Your task to perform on an android device: Search for vegetarian restaurants on Maps Image 0: 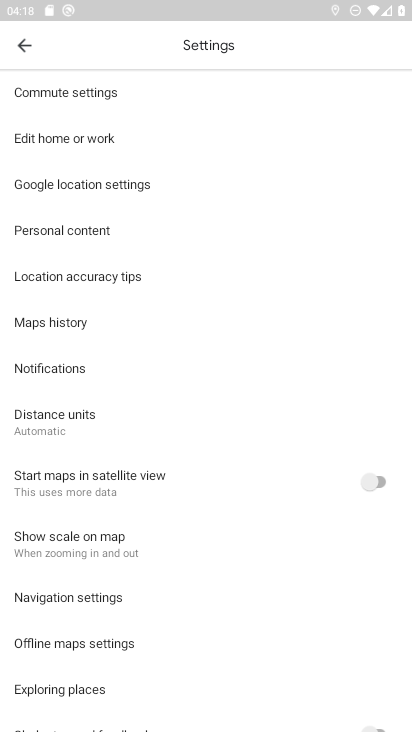
Step 0: press home button
Your task to perform on an android device: Search for vegetarian restaurants on Maps Image 1: 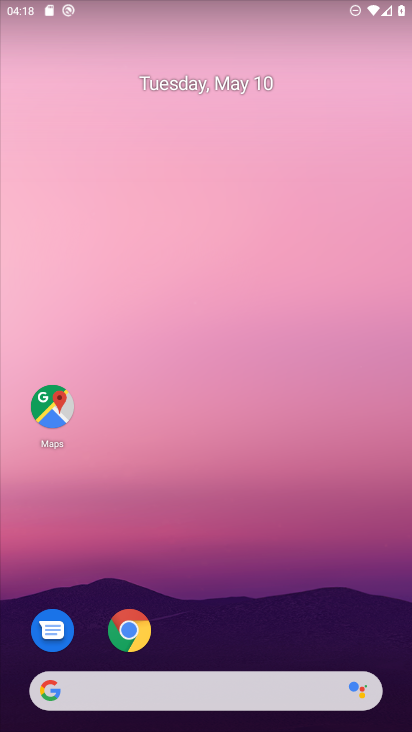
Step 1: click (48, 401)
Your task to perform on an android device: Search for vegetarian restaurants on Maps Image 2: 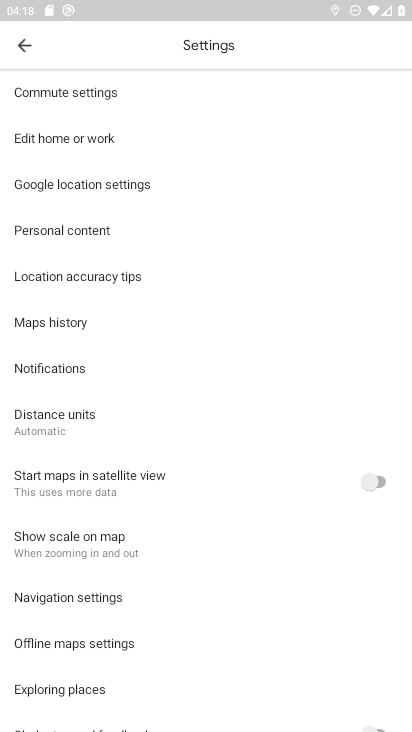
Step 2: press home button
Your task to perform on an android device: Search for vegetarian restaurants on Maps Image 3: 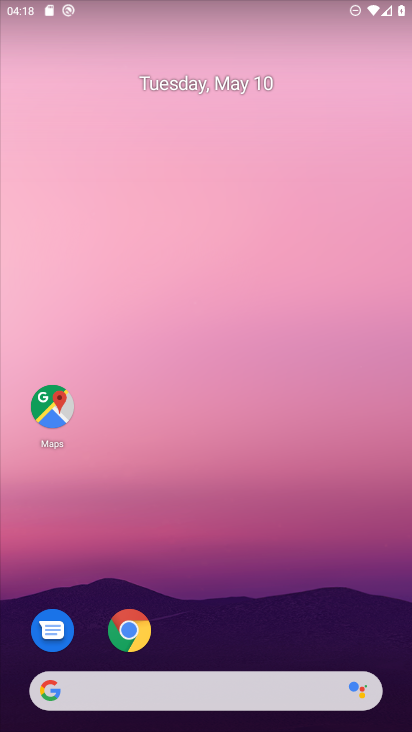
Step 3: click (48, 426)
Your task to perform on an android device: Search for vegetarian restaurants on Maps Image 4: 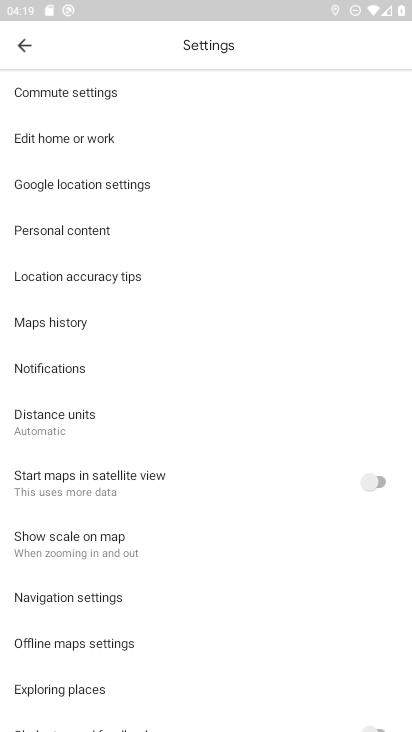
Step 4: press home button
Your task to perform on an android device: Search for vegetarian restaurants on Maps Image 5: 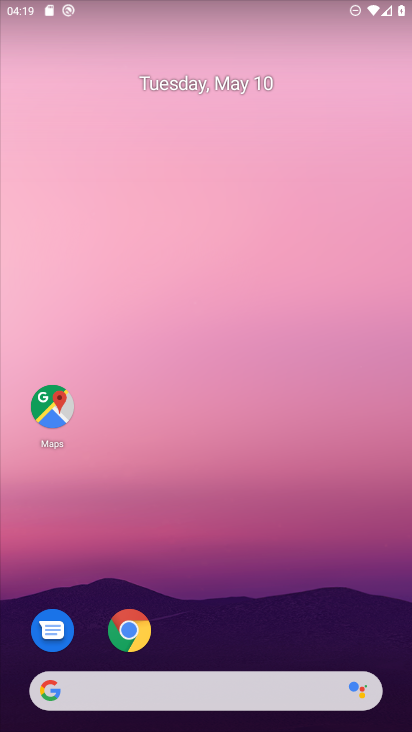
Step 5: click (59, 412)
Your task to perform on an android device: Search for vegetarian restaurants on Maps Image 6: 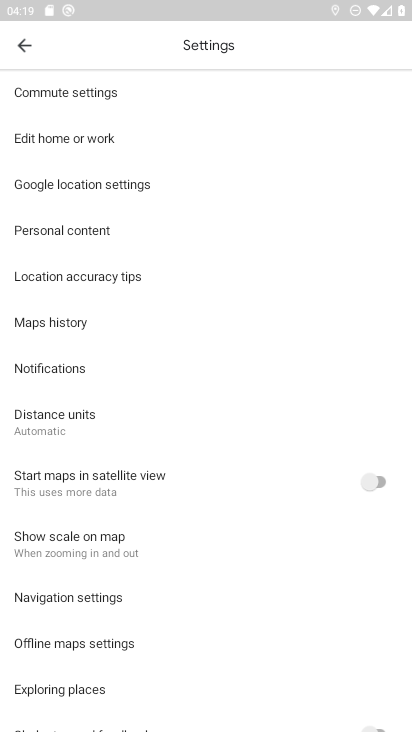
Step 6: click (38, 67)
Your task to perform on an android device: Search for vegetarian restaurants on Maps Image 7: 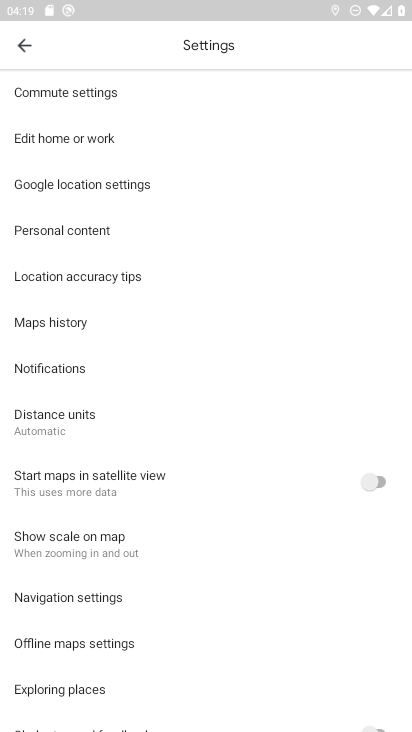
Step 7: click (35, 54)
Your task to perform on an android device: Search for vegetarian restaurants on Maps Image 8: 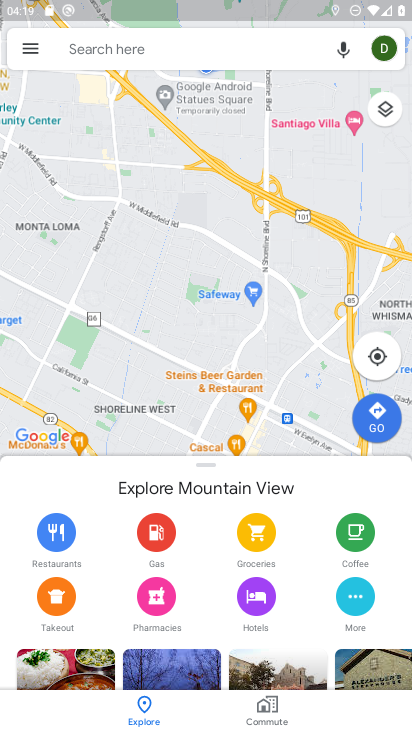
Step 8: click (125, 56)
Your task to perform on an android device: Search for vegetarian restaurants on Maps Image 9: 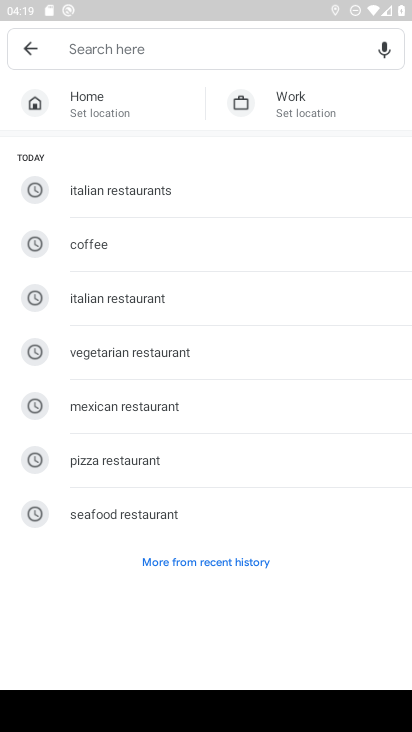
Step 9: click (244, 361)
Your task to perform on an android device: Search for vegetarian restaurants on Maps Image 10: 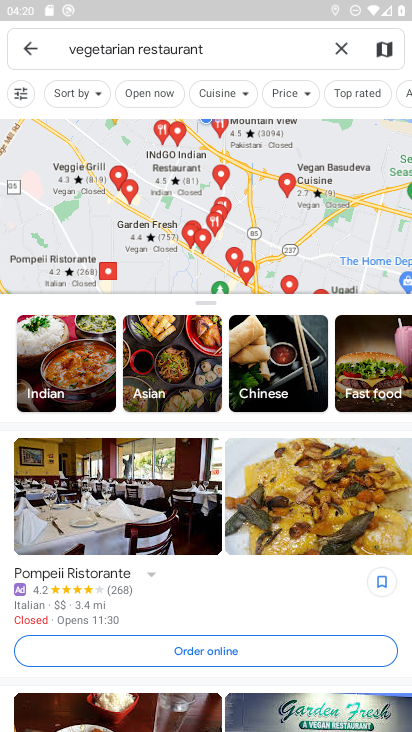
Step 10: task complete